Your task to perform on an android device: check android version Image 0: 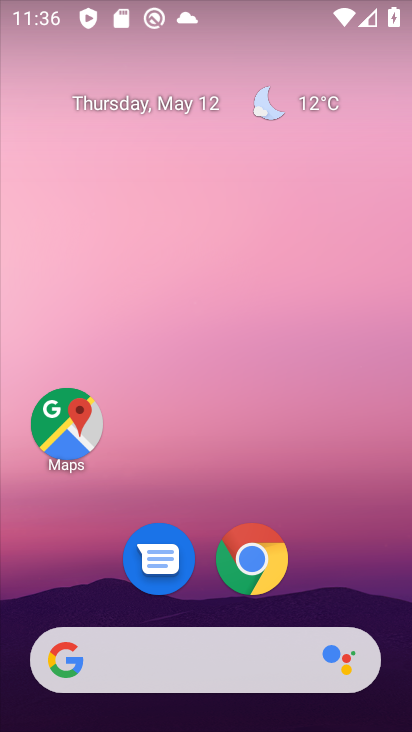
Step 0: drag from (173, 621) to (270, 126)
Your task to perform on an android device: check android version Image 1: 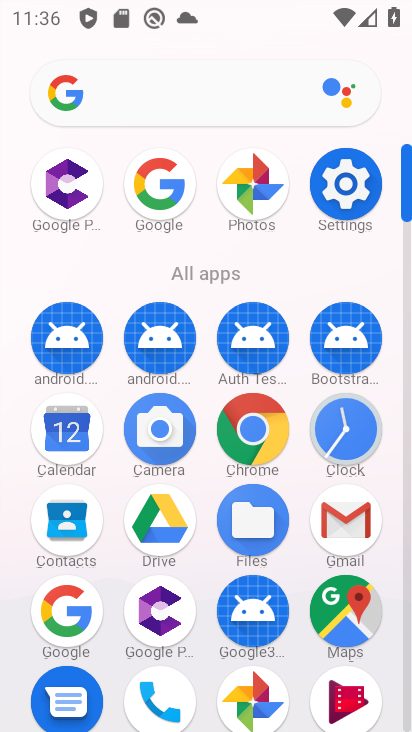
Step 1: drag from (189, 670) to (278, 394)
Your task to perform on an android device: check android version Image 2: 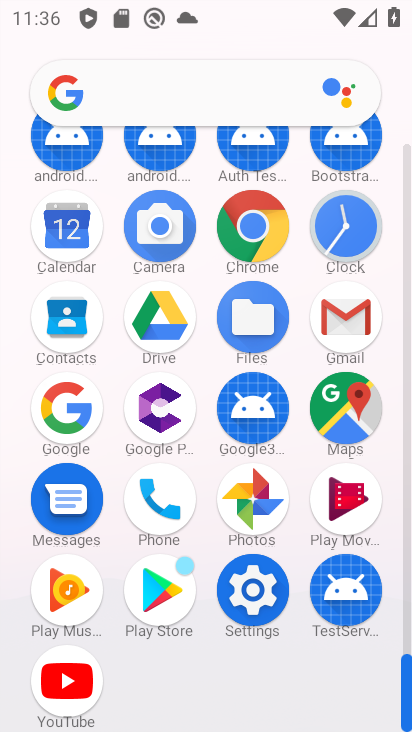
Step 2: click (262, 610)
Your task to perform on an android device: check android version Image 3: 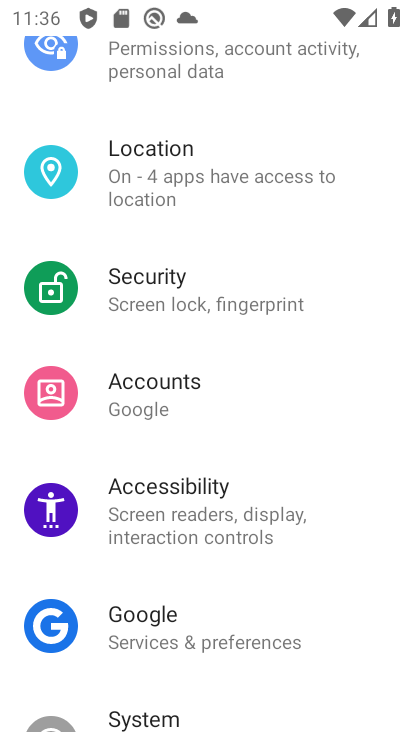
Step 3: drag from (149, 657) to (276, 174)
Your task to perform on an android device: check android version Image 4: 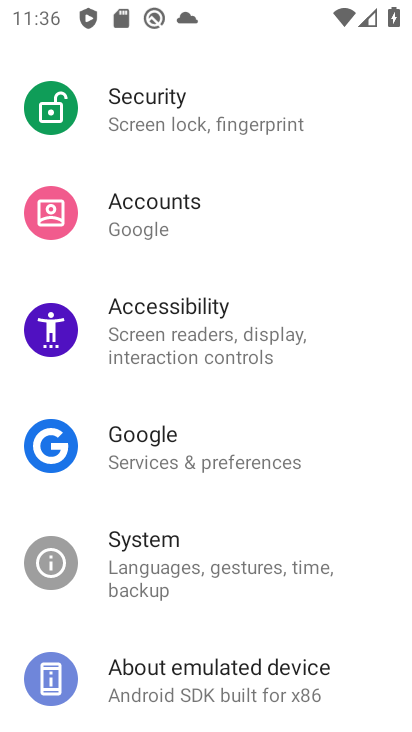
Step 4: drag from (219, 647) to (285, 378)
Your task to perform on an android device: check android version Image 5: 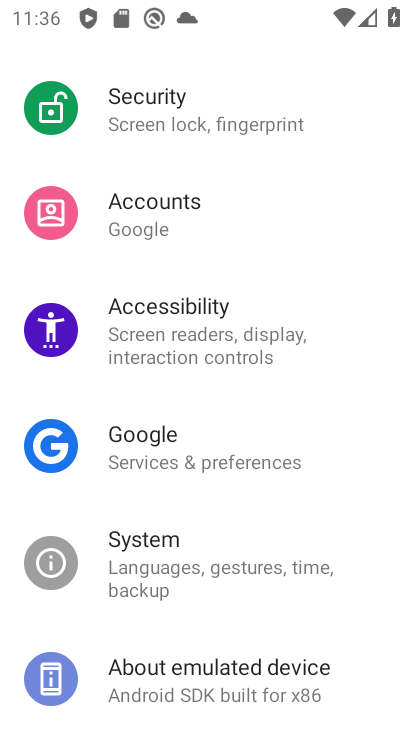
Step 5: click (233, 687)
Your task to perform on an android device: check android version Image 6: 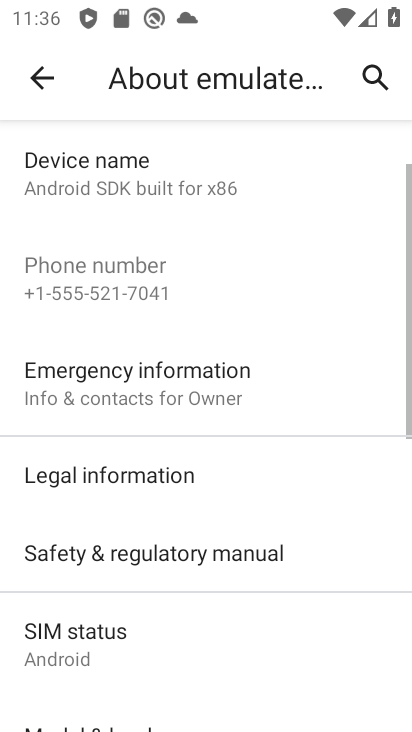
Step 6: drag from (149, 653) to (246, 315)
Your task to perform on an android device: check android version Image 7: 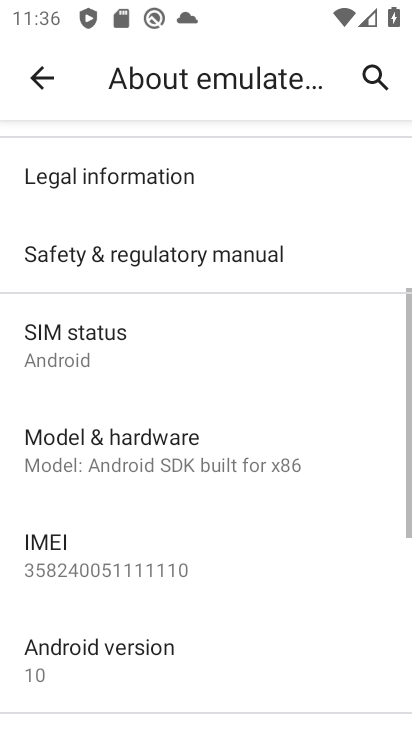
Step 7: click (176, 659)
Your task to perform on an android device: check android version Image 8: 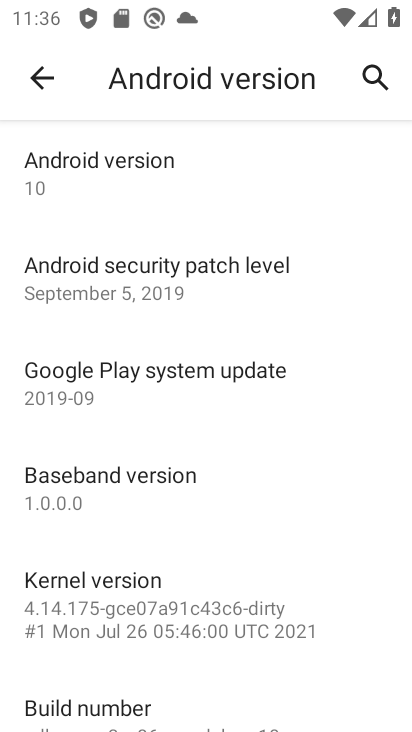
Step 8: task complete